Your task to perform on an android device: Go to network settings Image 0: 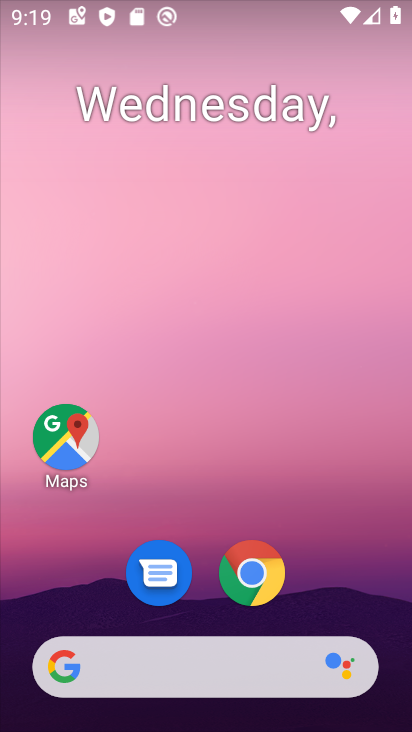
Step 0: drag from (375, 461) to (348, 139)
Your task to perform on an android device: Go to network settings Image 1: 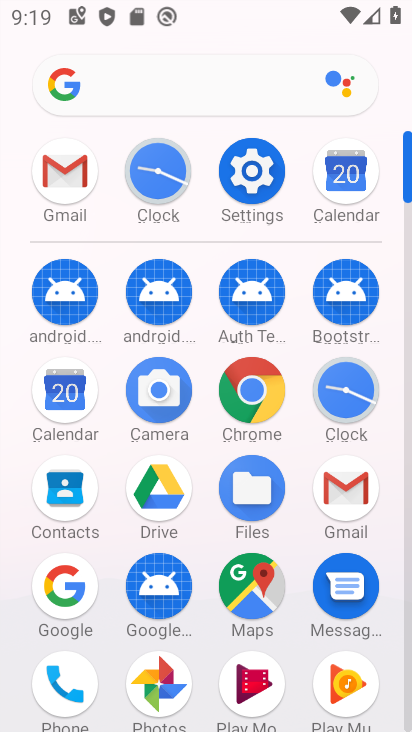
Step 1: click (254, 173)
Your task to perform on an android device: Go to network settings Image 2: 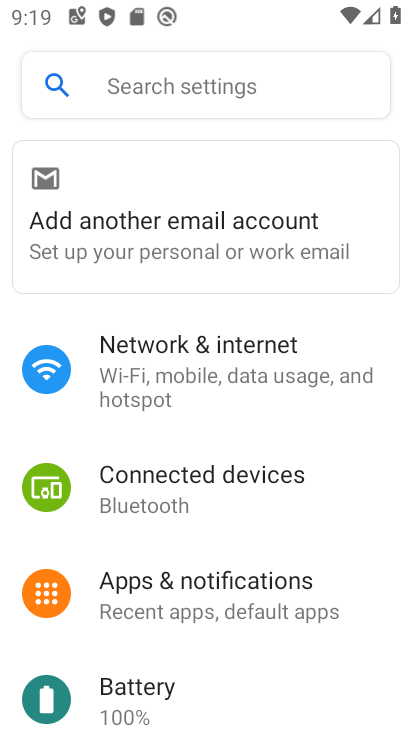
Step 2: click (161, 354)
Your task to perform on an android device: Go to network settings Image 3: 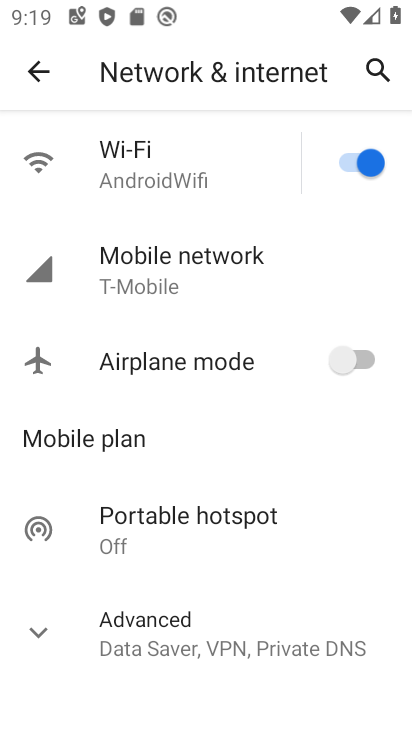
Step 3: click (132, 261)
Your task to perform on an android device: Go to network settings Image 4: 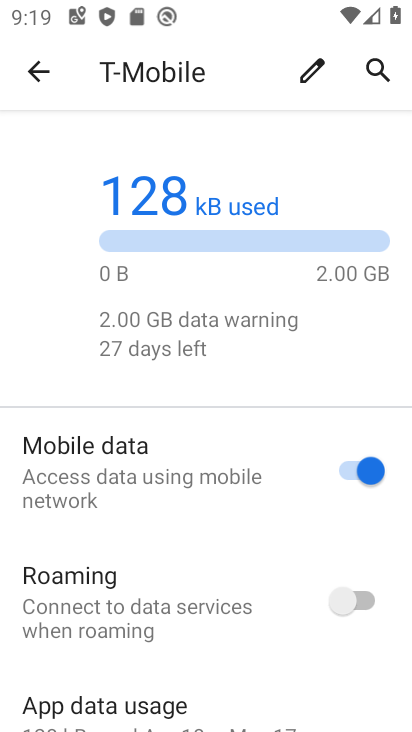
Step 4: task complete